Your task to perform on an android device: open device folders in google photos Image 0: 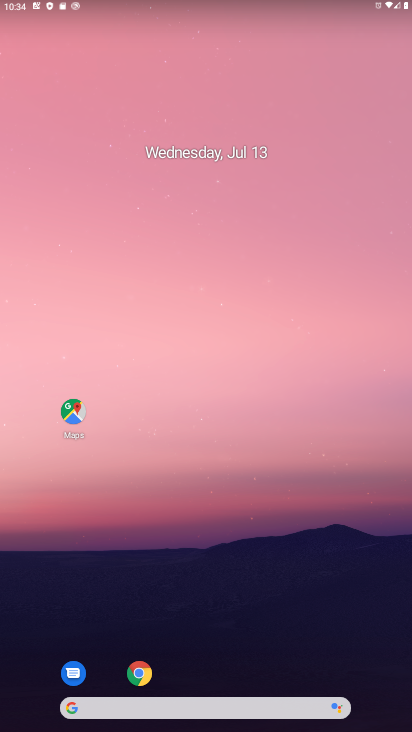
Step 0: drag from (198, 691) to (213, 114)
Your task to perform on an android device: open device folders in google photos Image 1: 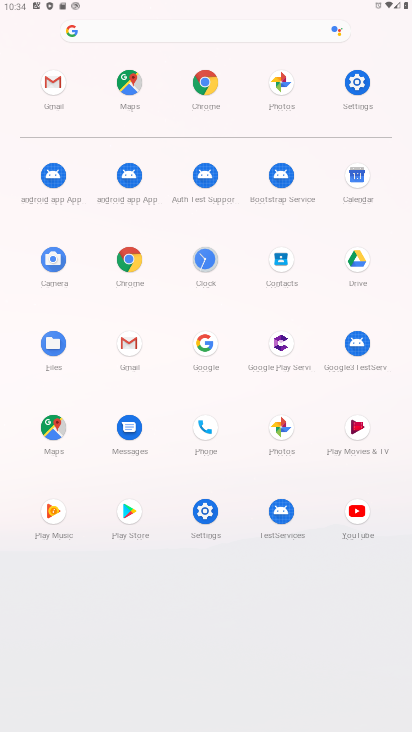
Step 1: click (282, 93)
Your task to perform on an android device: open device folders in google photos Image 2: 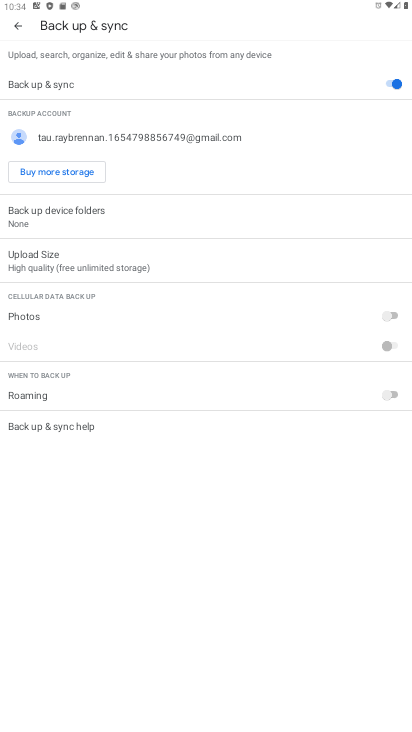
Step 2: click (17, 25)
Your task to perform on an android device: open device folders in google photos Image 3: 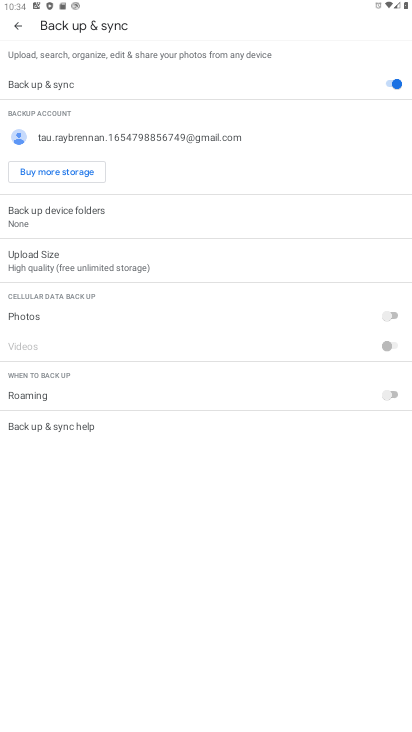
Step 3: click (17, 25)
Your task to perform on an android device: open device folders in google photos Image 4: 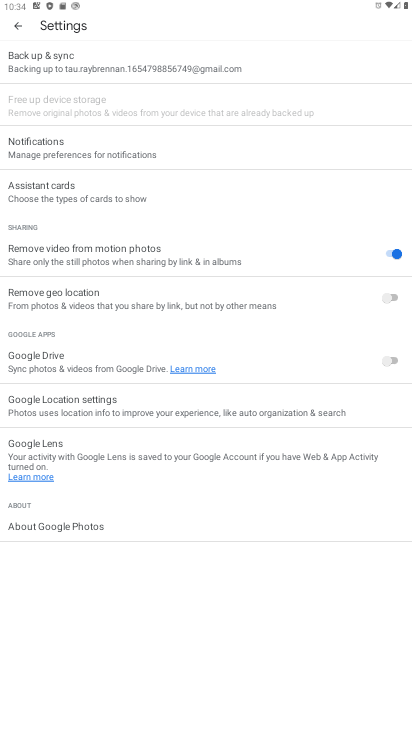
Step 4: click (23, 33)
Your task to perform on an android device: open device folders in google photos Image 5: 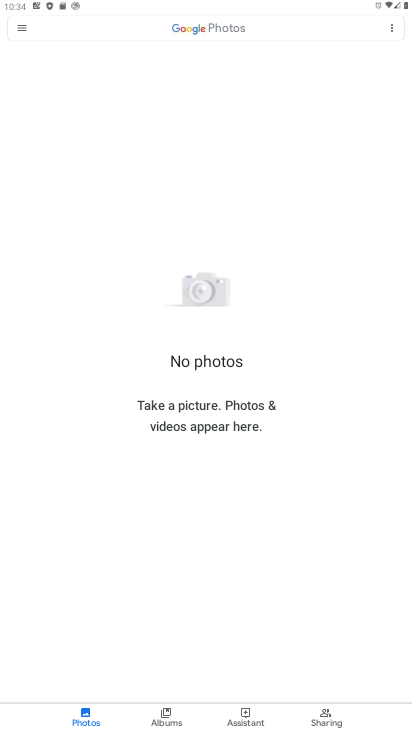
Step 5: click (23, 33)
Your task to perform on an android device: open device folders in google photos Image 6: 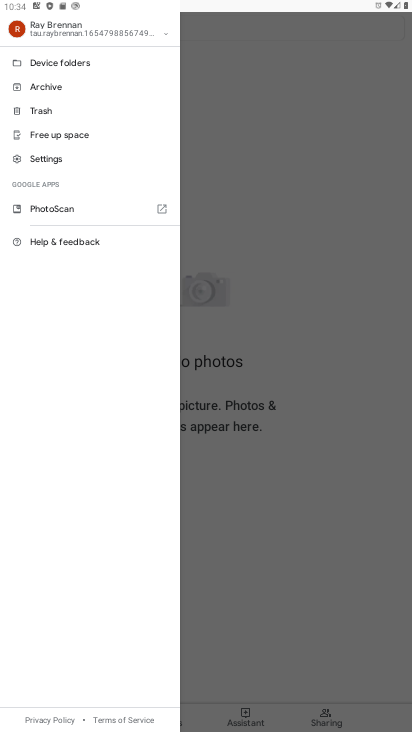
Step 6: click (90, 71)
Your task to perform on an android device: open device folders in google photos Image 7: 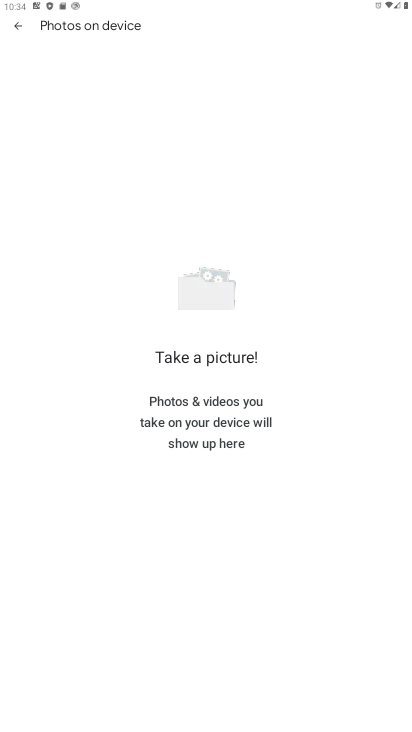
Step 7: task complete